Your task to perform on an android device: Open Android settings Image 0: 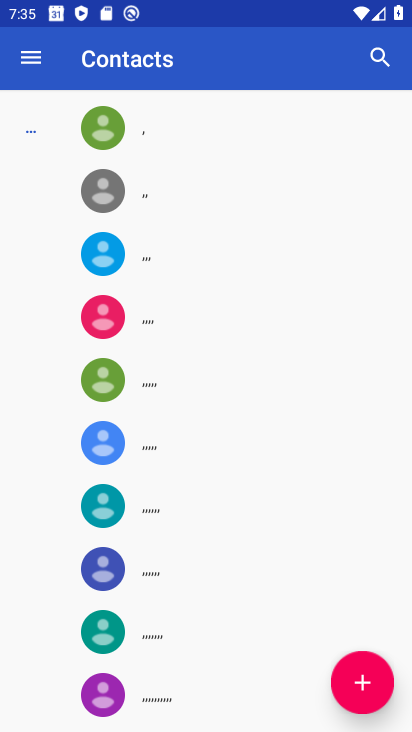
Step 0: press home button
Your task to perform on an android device: Open Android settings Image 1: 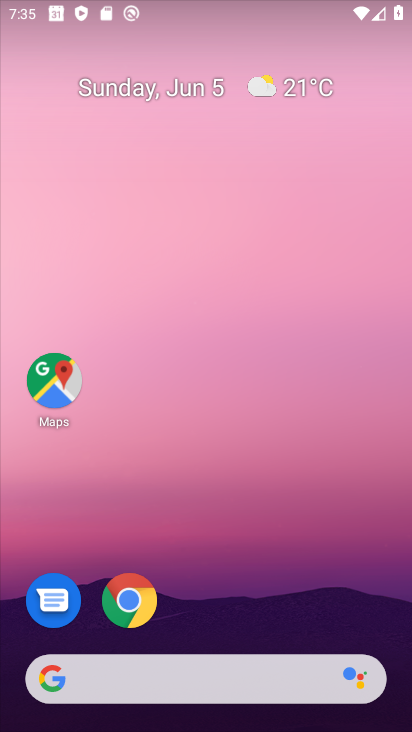
Step 1: drag from (194, 721) to (173, 132)
Your task to perform on an android device: Open Android settings Image 2: 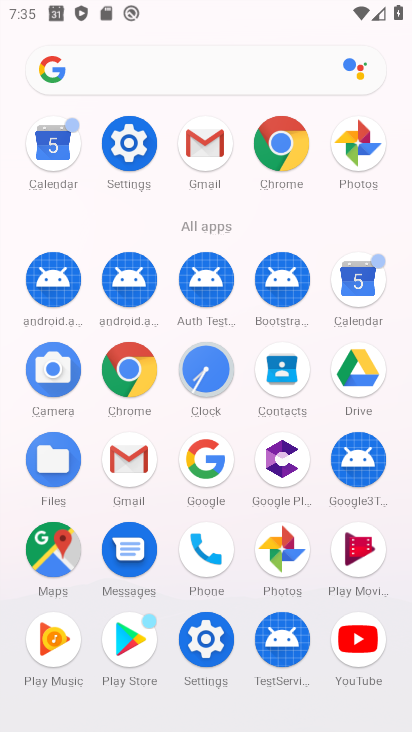
Step 2: click (111, 150)
Your task to perform on an android device: Open Android settings Image 3: 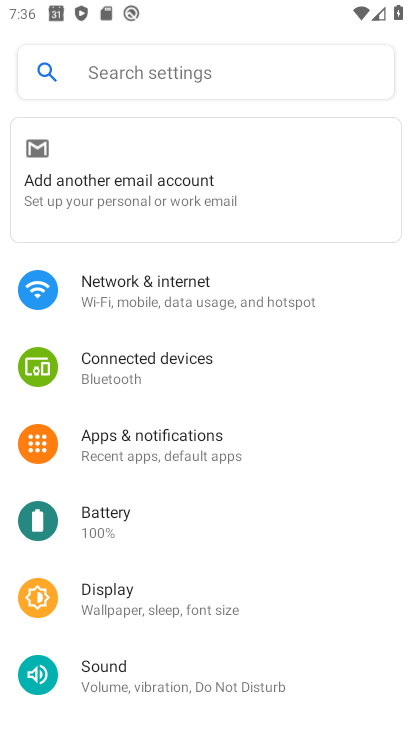
Step 3: task complete